Your task to perform on an android device: turn vacation reply on in the gmail app Image 0: 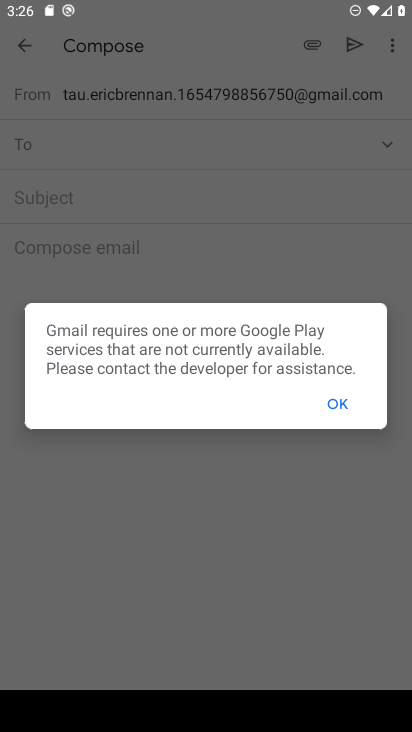
Step 0: press home button
Your task to perform on an android device: turn vacation reply on in the gmail app Image 1: 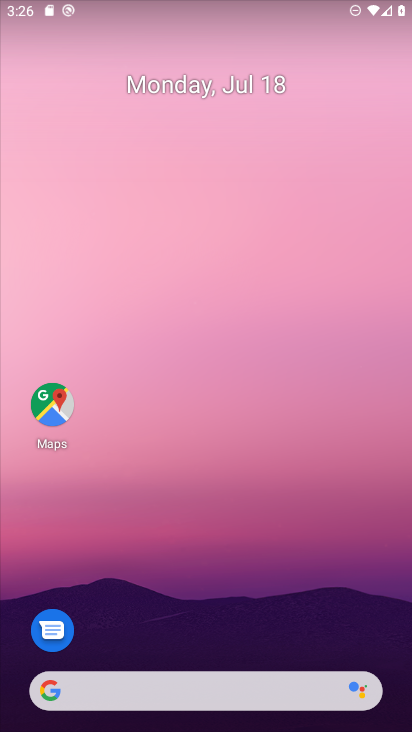
Step 1: drag from (302, 717) to (315, 48)
Your task to perform on an android device: turn vacation reply on in the gmail app Image 2: 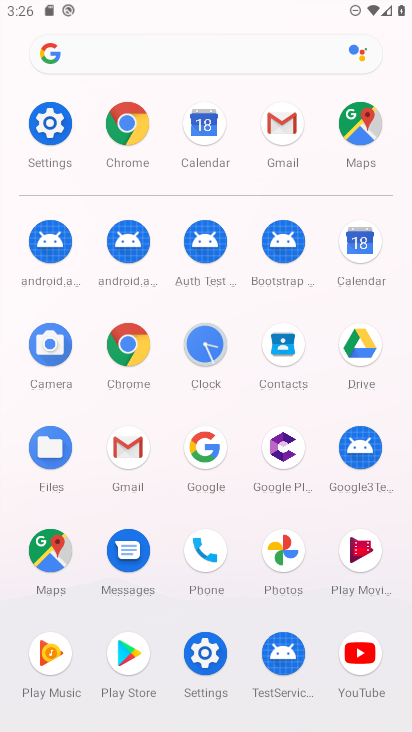
Step 2: click (135, 449)
Your task to perform on an android device: turn vacation reply on in the gmail app Image 3: 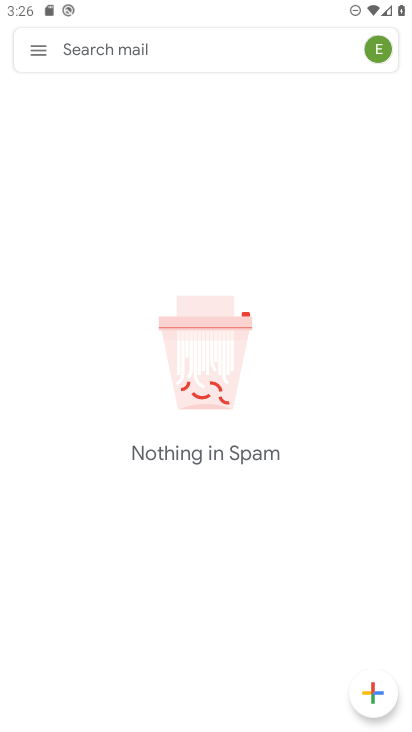
Step 3: click (33, 42)
Your task to perform on an android device: turn vacation reply on in the gmail app Image 4: 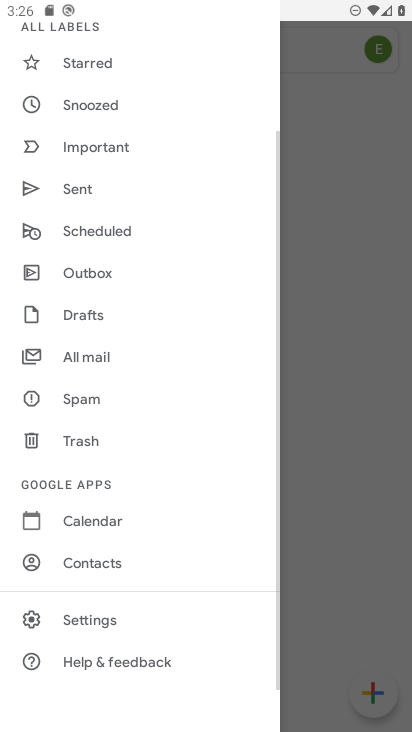
Step 4: click (84, 620)
Your task to perform on an android device: turn vacation reply on in the gmail app Image 5: 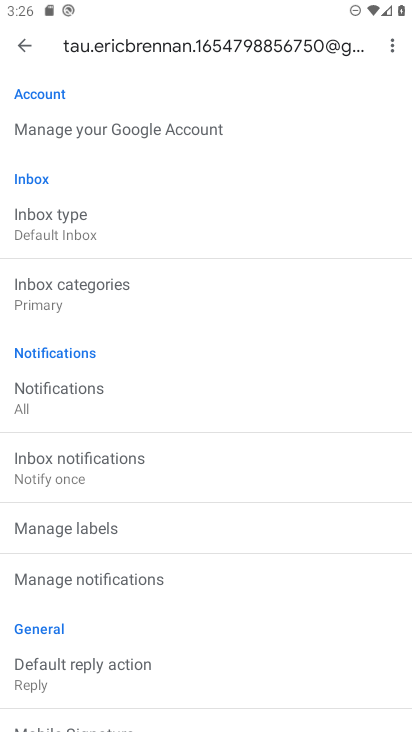
Step 5: drag from (134, 666) to (148, 152)
Your task to perform on an android device: turn vacation reply on in the gmail app Image 6: 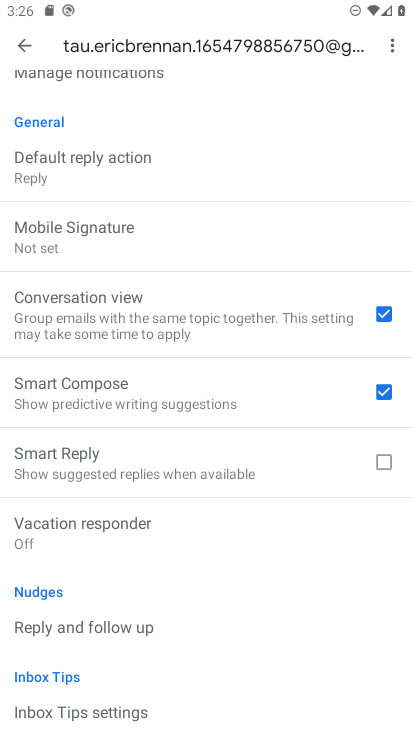
Step 6: click (149, 519)
Your task to perform on an android device: turn vacation reply on in the gmail app Image 7: 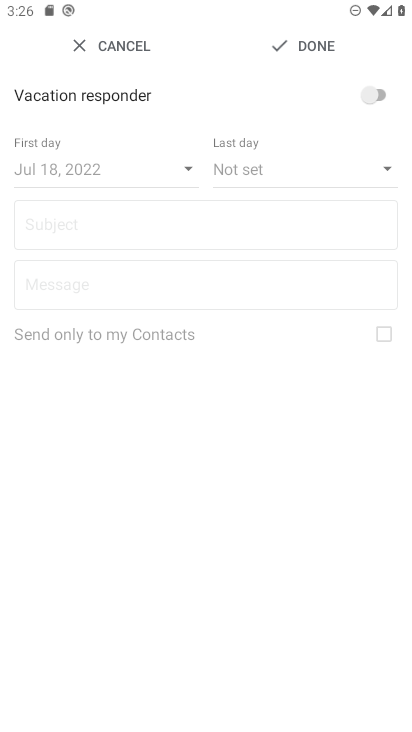
Step 7: click (309, 43)
Your task to perform on an android device: turn vacation reply on in the gmail app Image 8: 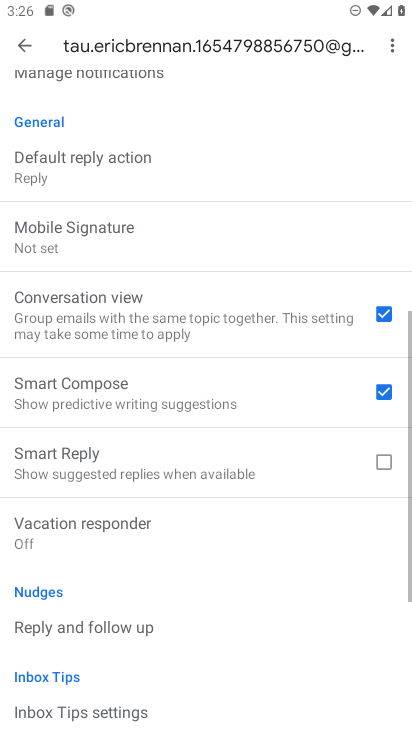
Step 8: task complete